Your task to perform on an android device: Open Reddit.com Image 0: 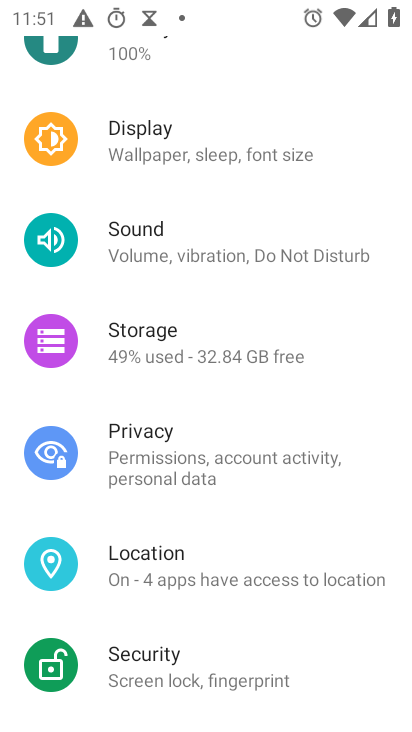
Step 0: press home button
Your task to perform on an android device: Open Reddit.com Image 1: 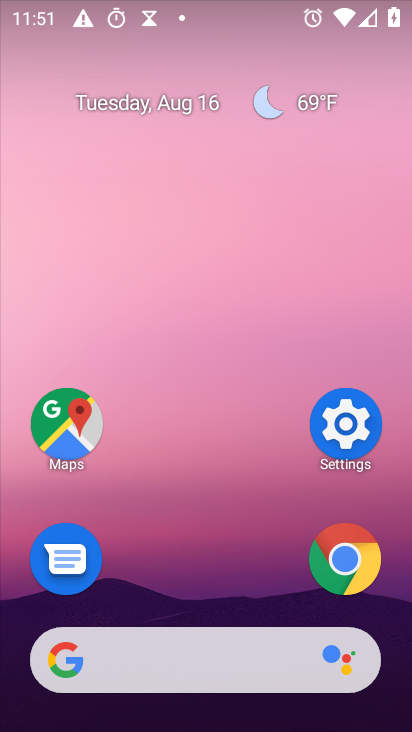
Step 1: click (349, 561)
Your task to perform on an android device: Open Reddit.com Image 2: 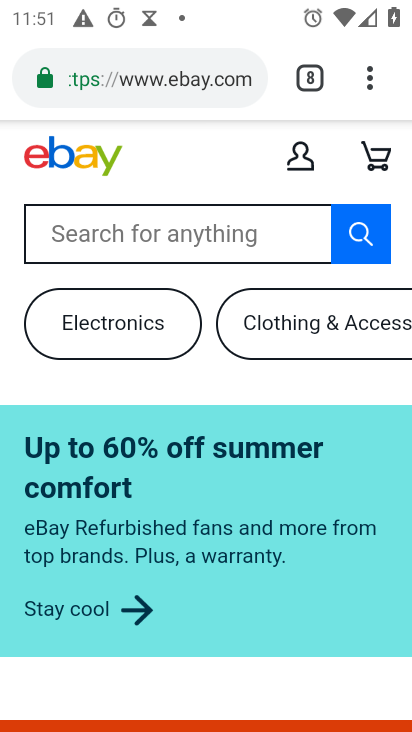
Step 2: drag from (370, 71) to (124, 162)
Your task to perform on an android device: Open Reddit.com Image 3: 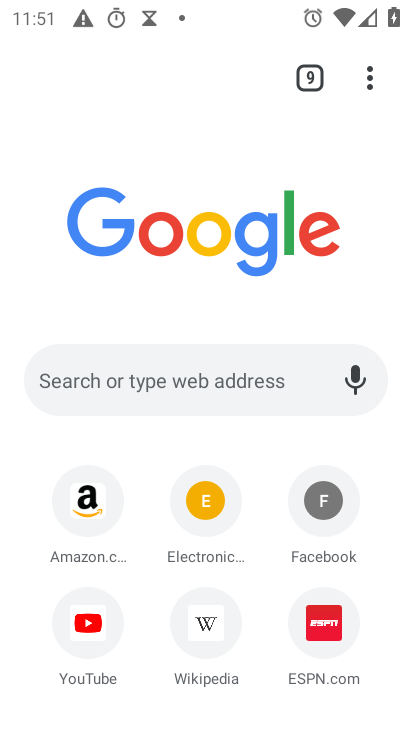
Step 3: click (143, 374)
Your task to perform on an android device: Open Reddit.com Image 4: 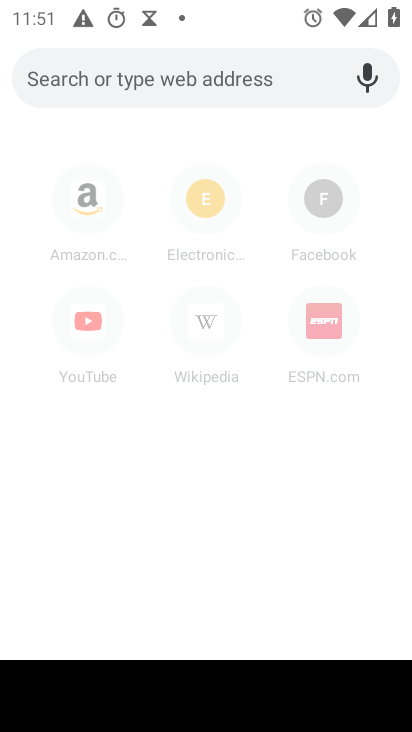
Step 4: type "Reddit.com"
Your task to perform on an android device: Open Reddit.com Image 5: 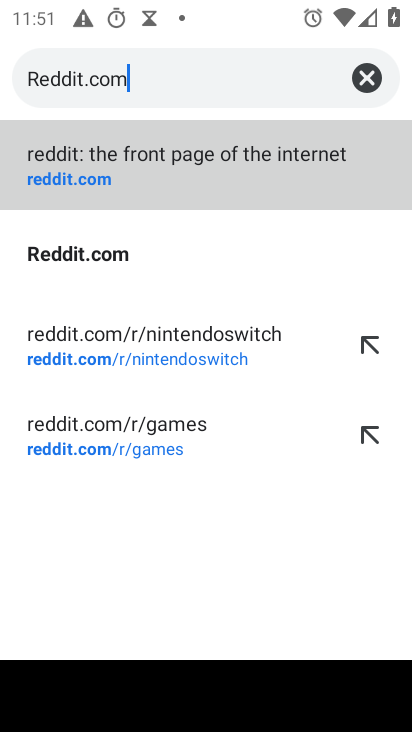
Step 5: click (135, 159)
Your task to perform on an android device: Open Reddit.com Image 6: 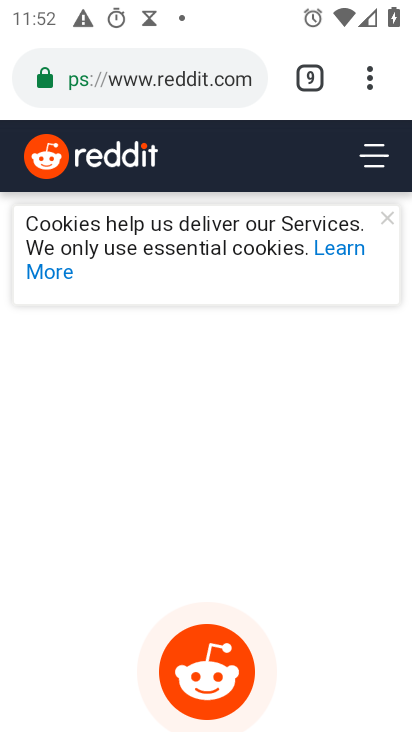
Step 6: task complete